Your task to perform on an android device: Open network settings Image 0: 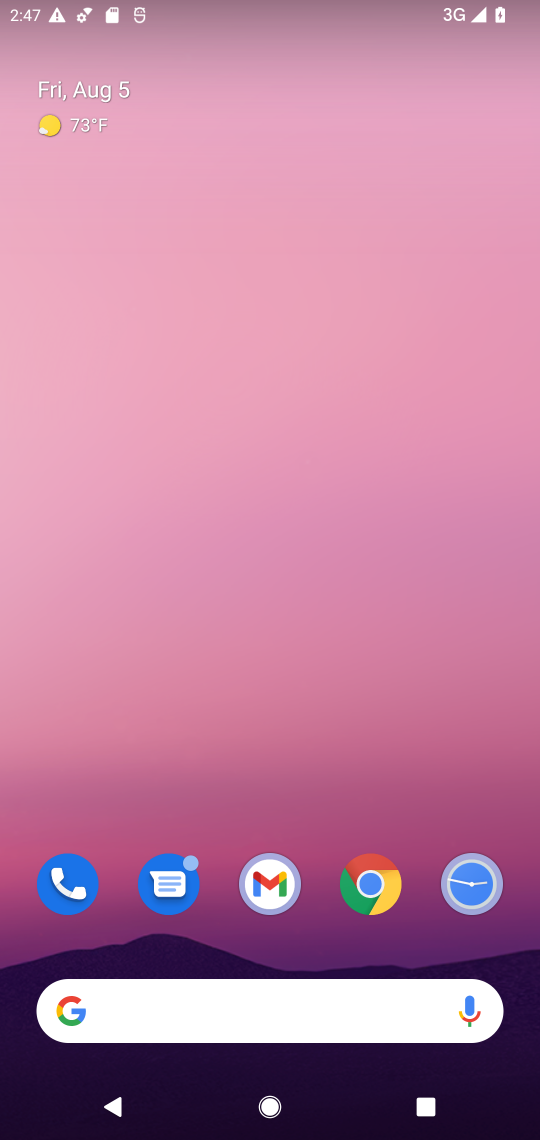
Step 0: drag from (421, 900) to (151, 411)
Your task to perform on an android device: Open network settings Image 1: 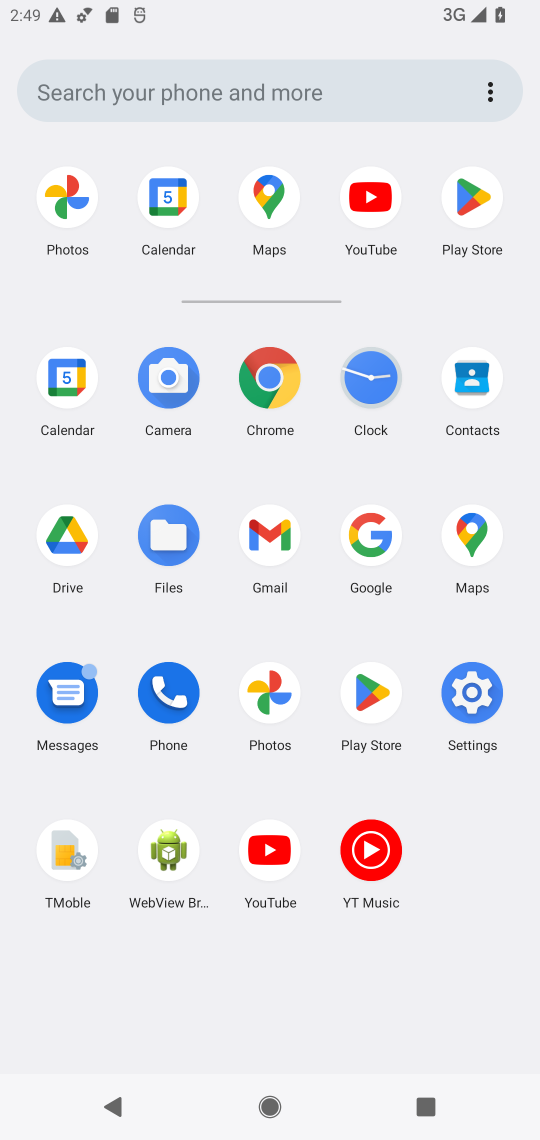
Step 1: click (488, 690)
Your task to perform on an android device: Open network settings Image 2: 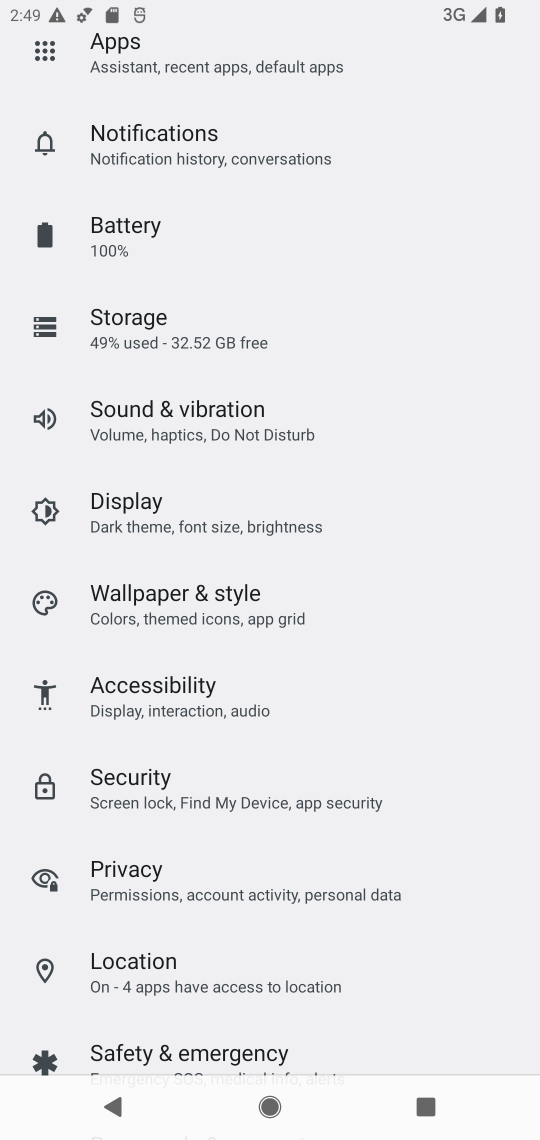
Step 2: drag from (142, 158) to (284, 1045)
Your task to perform on an android device: Open network settings Image 3: 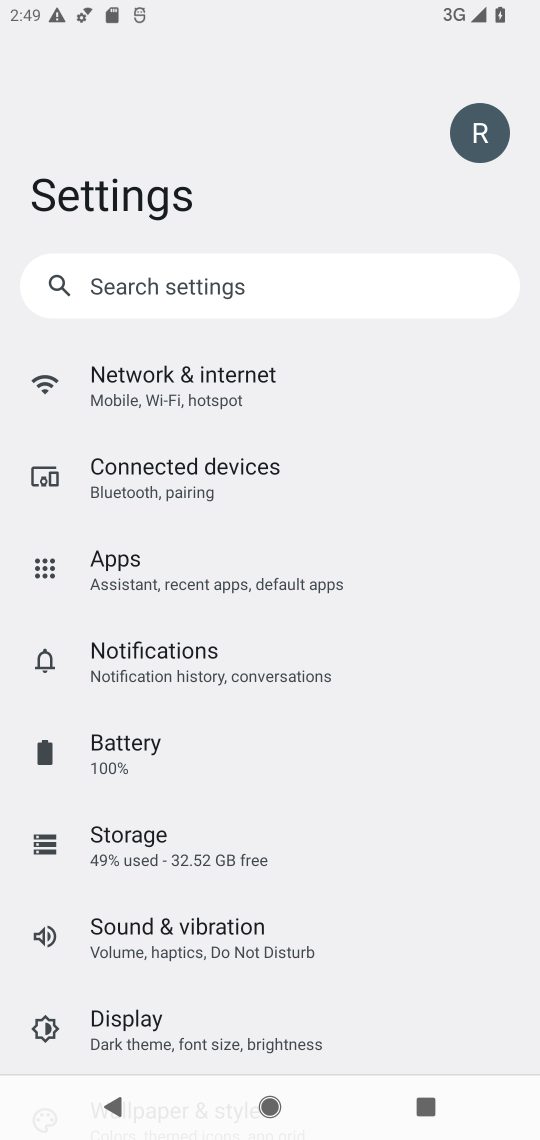
Step 3: click (191, 397)
Your task to perform on an android device: Open network settings Image 4: 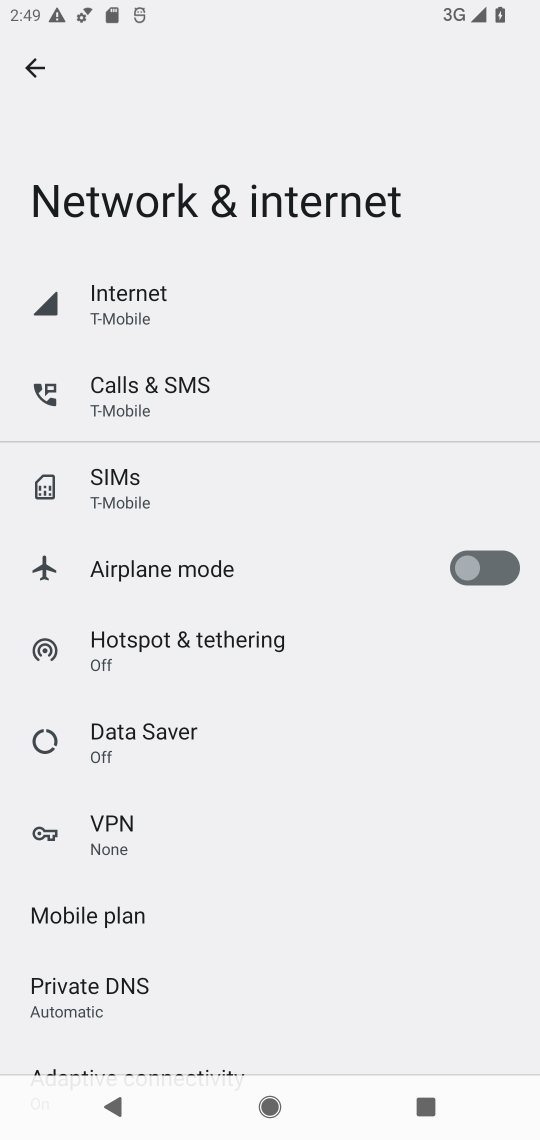
Step 4: task complete